Your task to perform on an android device: turn on the 12-hour format for clock Image 0: 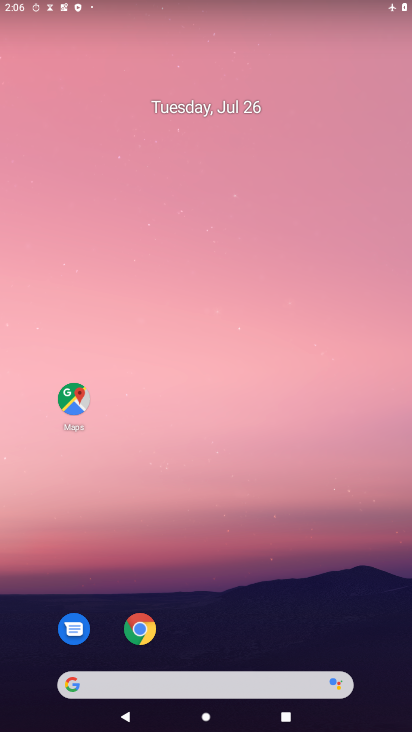
Step 0: drag from (255, 651) to (357, 12)
Your task to perform on an android device: turn on the 12-hour format for clock Image 1: 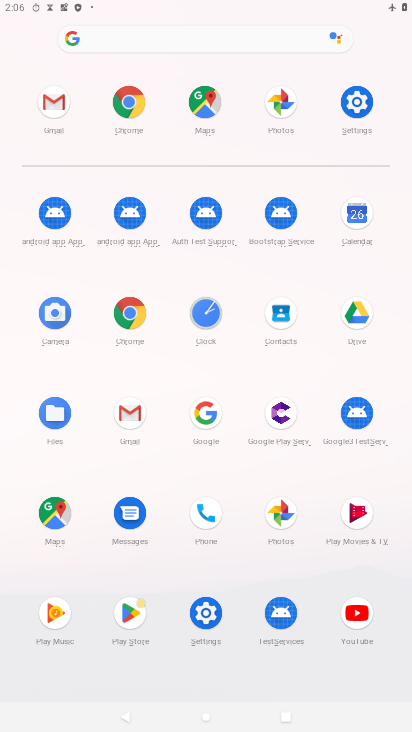
Step 1: click (210, 310)
Your task to perform on an android device: turn on the 12-hour format for clock Image 2: 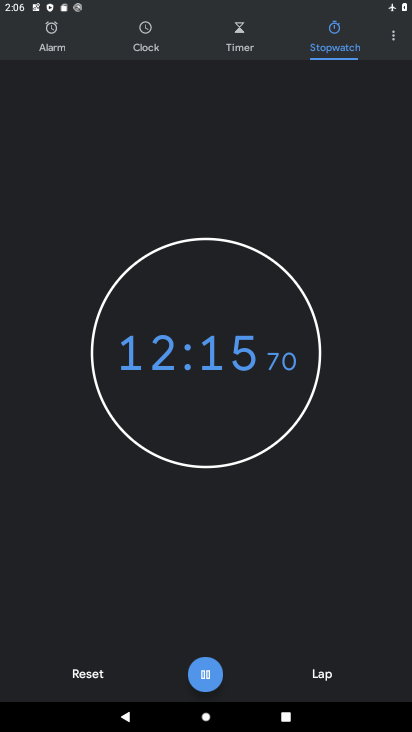
Step 2: click (391, 36)
Your task to perform on an android device: turn on the 12-hour format for clock Image 3: 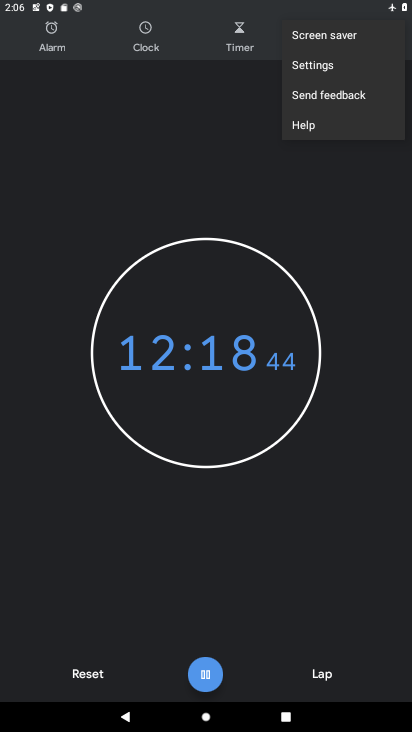
Step 3: click (330, 71)
Your task to perform on an android device: turn on the 12-hour format for clock Image 4: 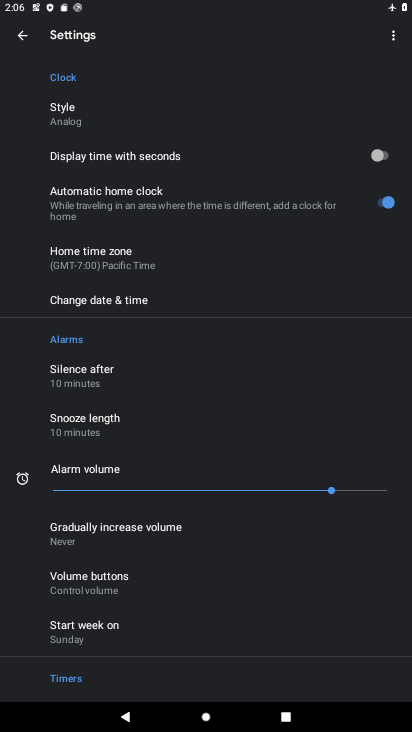
Step 4: click (121, 294)
Your task to perform on an android device: turn on the 12-hour format for clock Image 5: 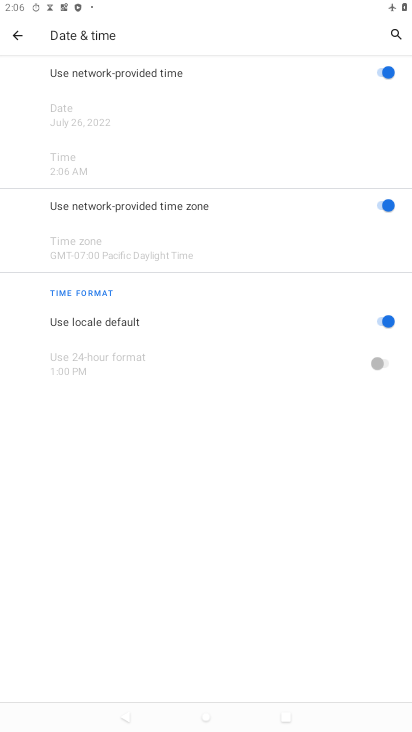
Step 5: click (377, 323)
Your task to perform on an android device: turn on the 12-hour format for clock Image 6: 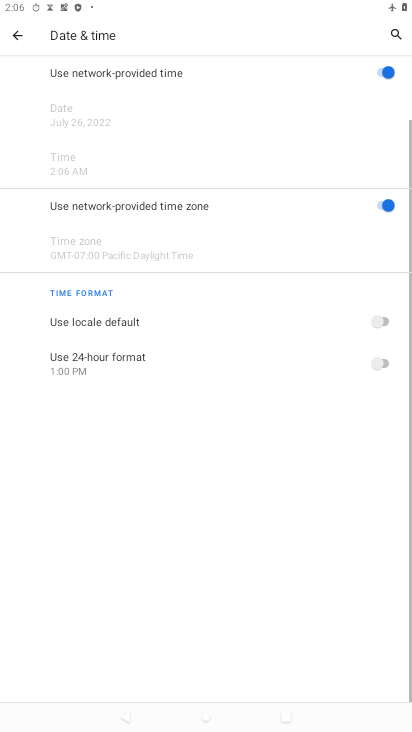
Step 6: task complete